Your task to perform on an android device: turn on the 24-hour format for clock Image 0: 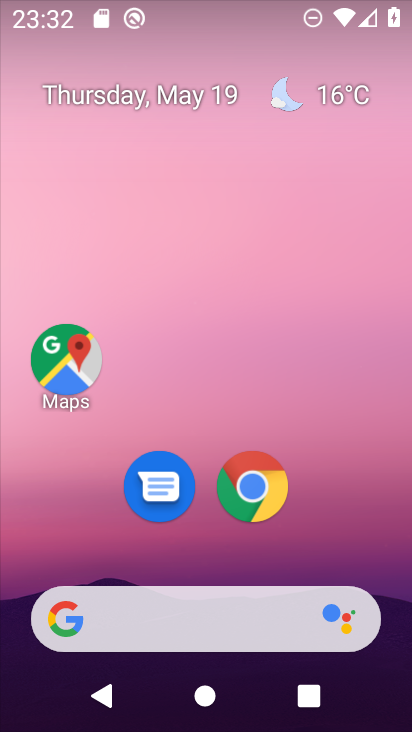
Step 0: drag from (398, 554) to (270, 3)
Your task to perform on an android device: turn on the 24-hour format for clock Image 1: 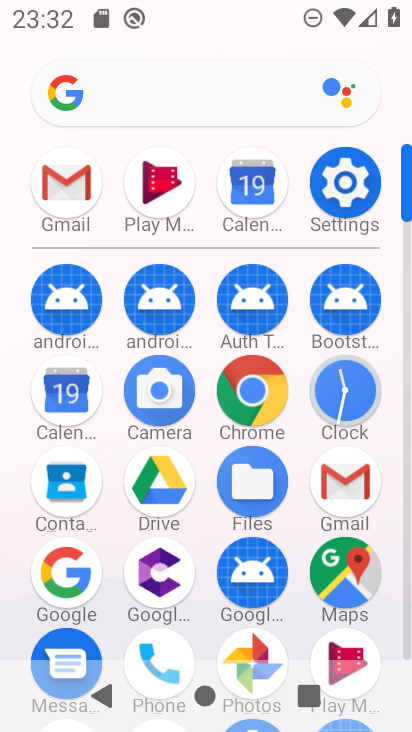
Step 1: click (338, 178)
Your task to perform on an android device: turn on the 24-hour format for clock Image 2: 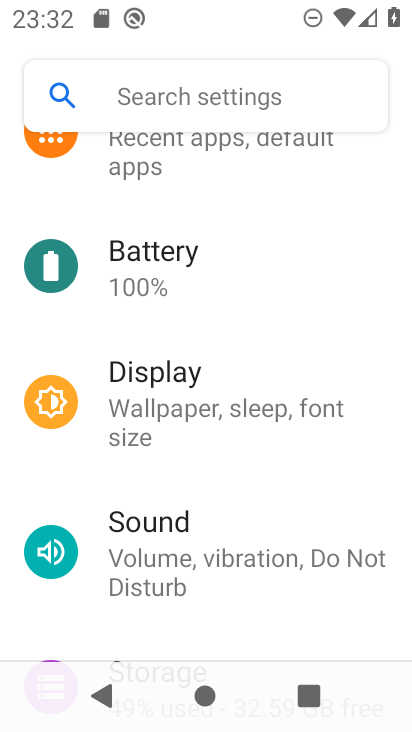
Step 2: press home button
Your task to perform on an android device: turn on the 24-hour format for clock Image 3: 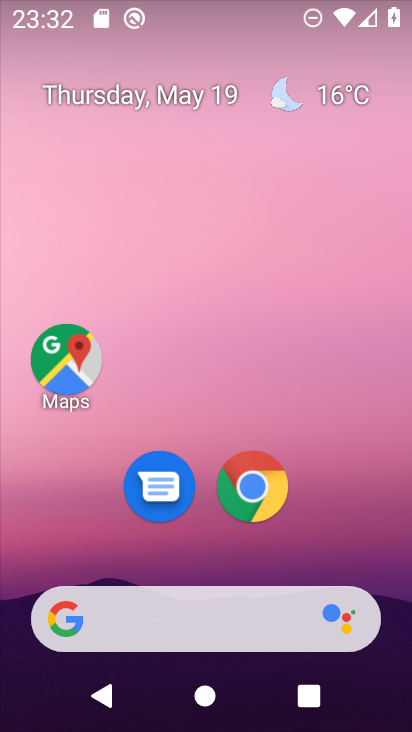
Step 3: drag from (374, 545) to (373, 99)
Your task to perform on an android device: turn on the 24-hour format for clock Image 4: 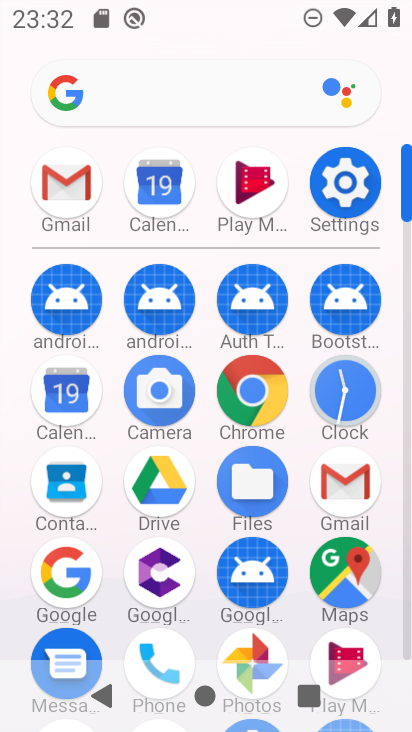
Step 4: click (337, 372)
Your task to perform on an android device: turn on the 24-hour format for clock Image 5: 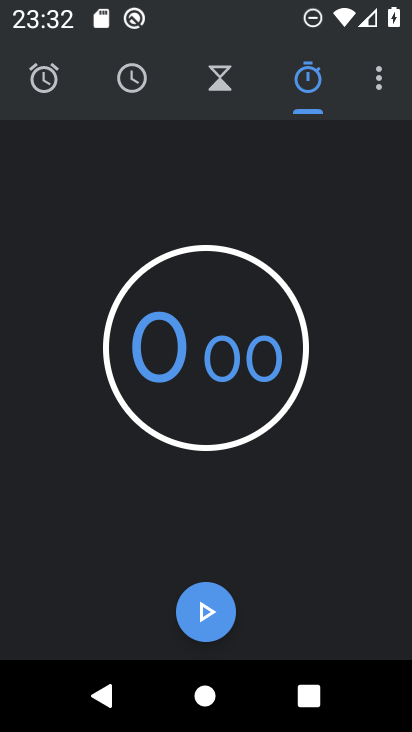
Step 5: click (367, 94)
Your task to perform on an android device: turn on the 24-hour format for clock Image 6: 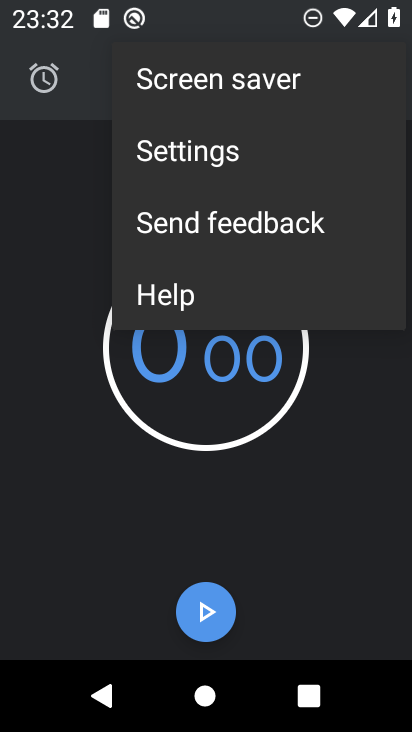
Step 6: click (290, 173)
Your task to perform on an android device: turn on the 24-hour format for clock Image 7: 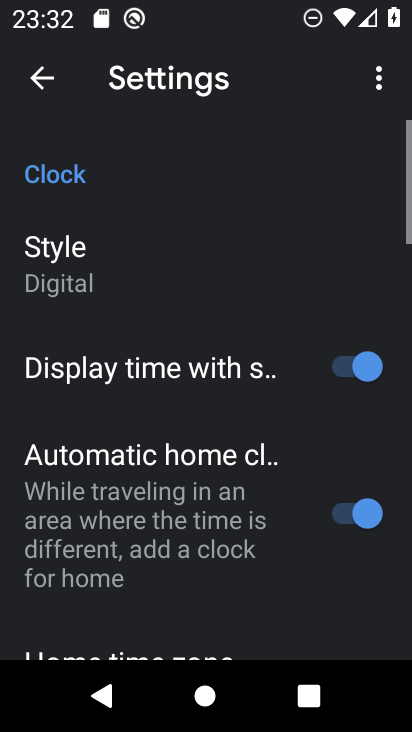
Step 7: drag from (184, 453) to (159, 398)
Your task to perform on an android device: turn on the 24-hour format for clock Image 8: 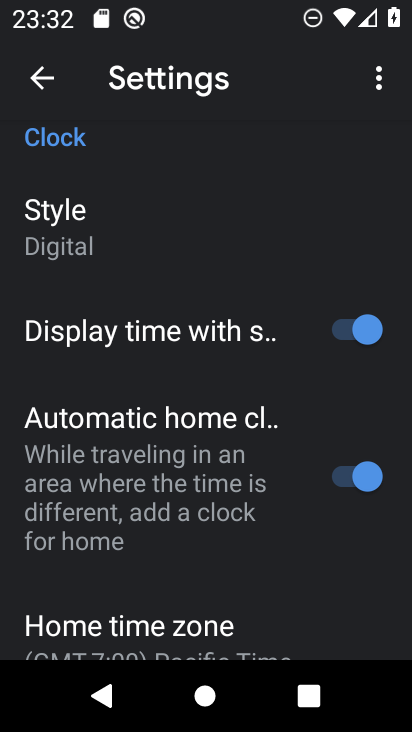
Step 8: drag from (166, 611) to (60, 369)
Your task to perform on an android device: turn on the 24-hour format for clock Image 9: 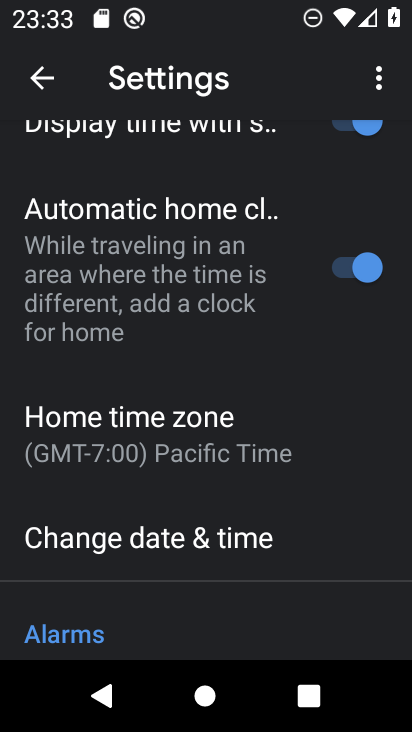
Step 9: click (129, 553)
Your task to perform on an android device: turn on the 24-hour format for clock Image 10: 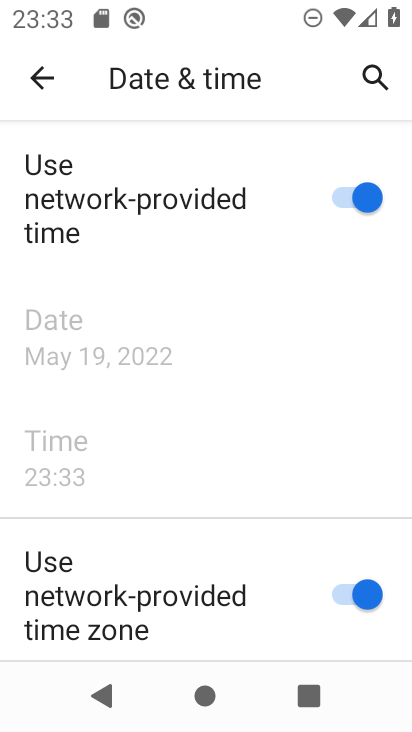
Step 10: task complete